Your task to perform on an android device: What is the news today? Image 0: 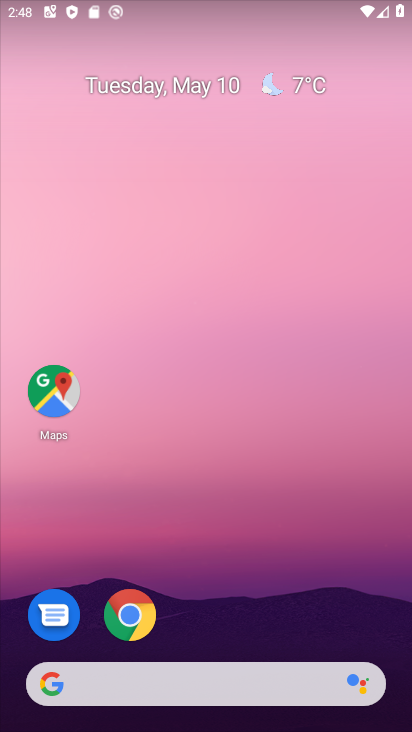
Step 0: drag from (4, 268) to (411, 316)
Your task to perform on an android device: What is the news today? Image 1: 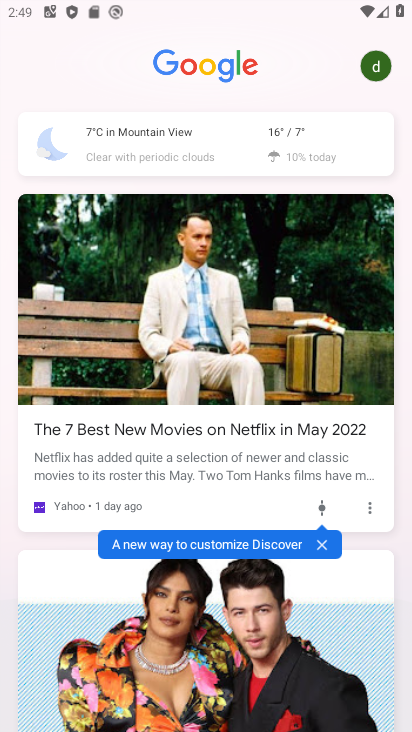
Step 1: task complete